Your task to perform on an android device: add a label to a message in the gmail app Image 0: 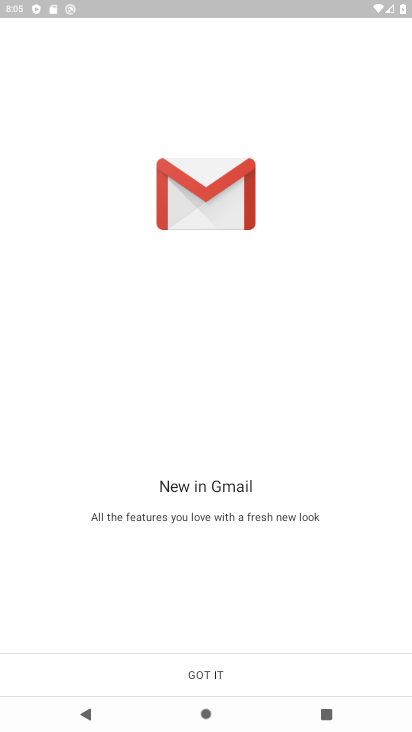
Step 0: click (311, 721)
Your task to perform on an android device: add a label to a message in the gmail app Image 1: 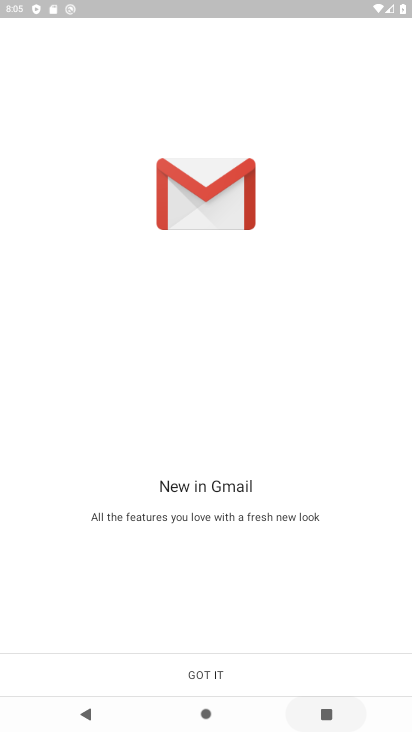
Step 1: click (218, 680)
Your task to perform on an android device: add a label to a message in the gmail app Image 2: 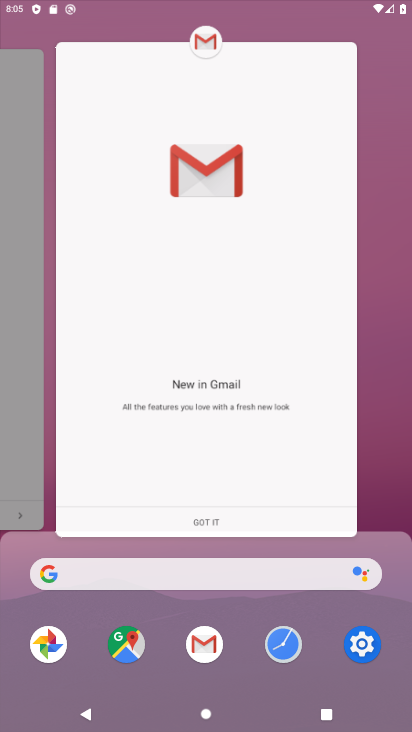
Step 2: click (200, 518)
Your task to perform on an android device: add a label to a message in the gmail app Image 3: 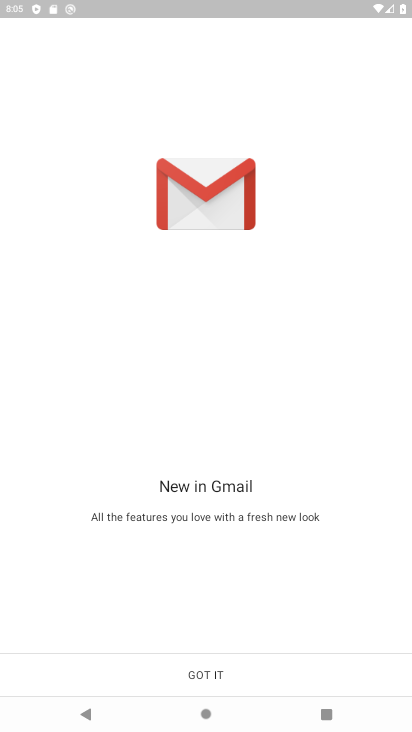
Step 3: click (212, 670)
Your task to perform on an android device: add a label to a message in the gmail app Image 4: 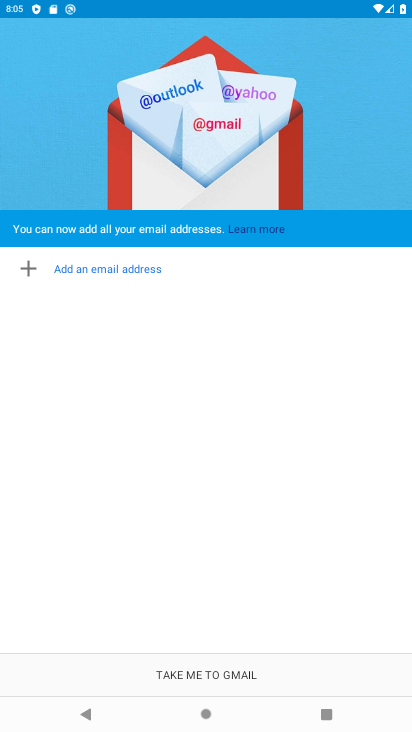
Step 4: task complete